Your task to perform on an android device: Open CNN.com Image 0: 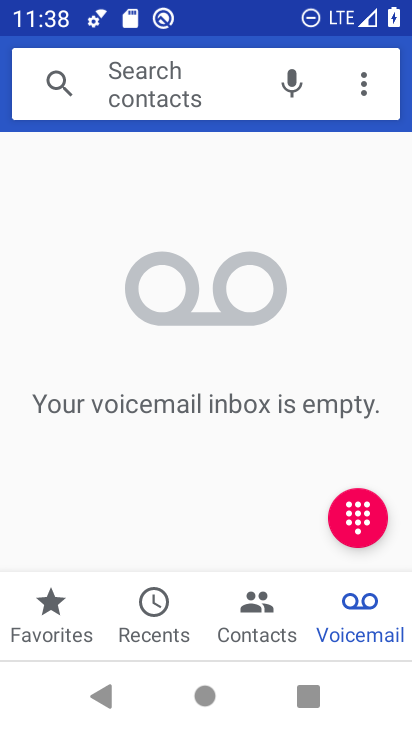
Step 0: press home button
Your task to perform on an android device: Open CNN.com Image 1: 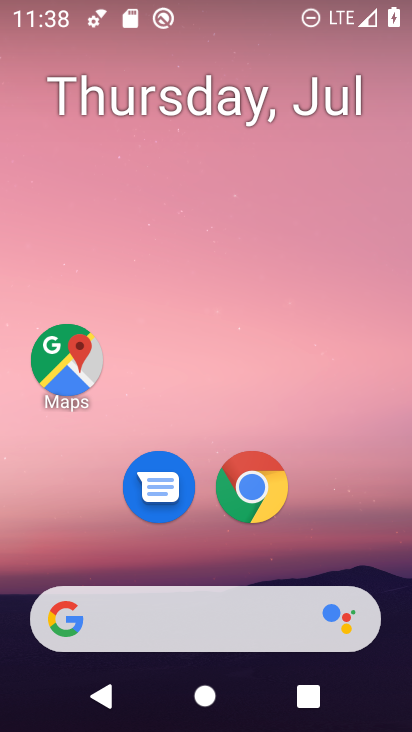
Step 1: drag from (240, 602) to (233, 50)
Your task to perform on an android device: Open CNN.com Image 2: 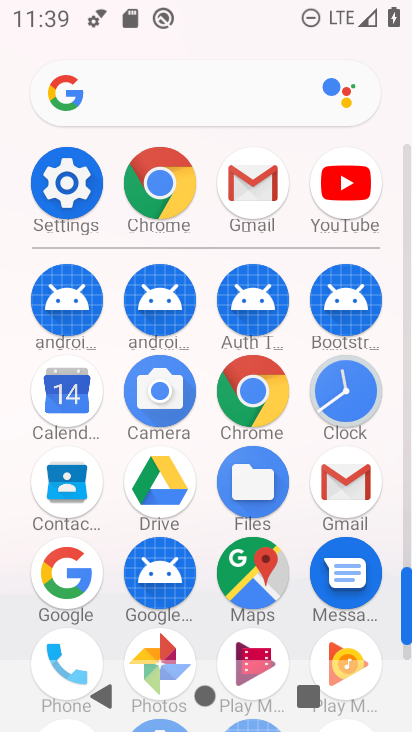
Step 2: click (184, 190)
Your task to perform on an android device: Open CNN.com Image 3: 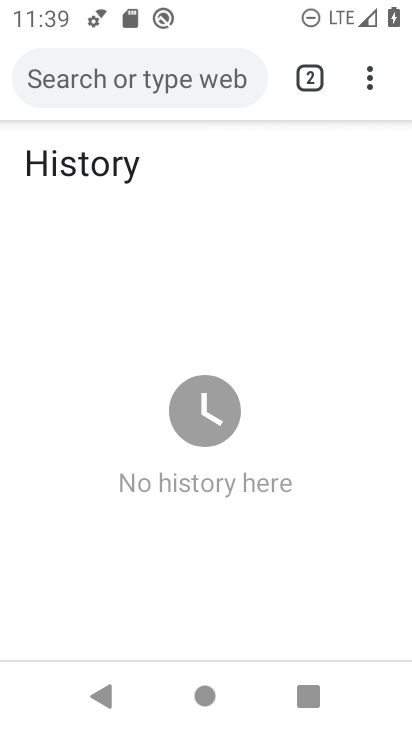
Step 3: click (200, 89)
Your task to perform on an android device: Open CNN.com Image 4: 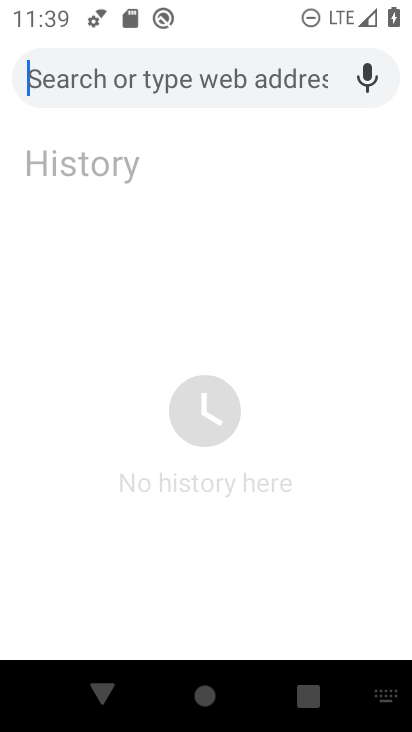
Step 4: type "cnn"
Your task to perform on an android device: Open CNN.com Image 5: 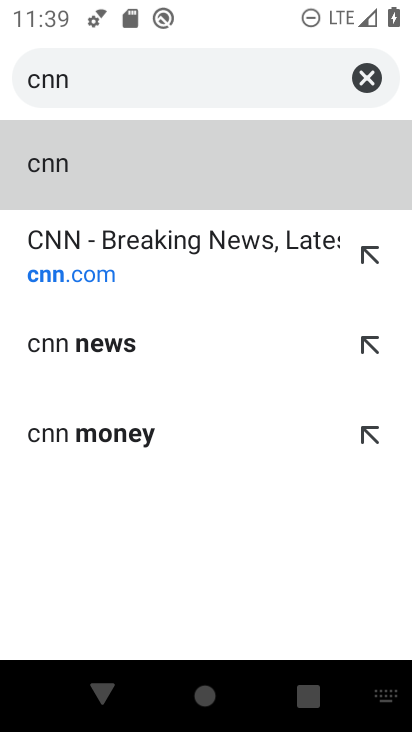
Step 5: click (165, 267)
Your task to perform on an android device: Open CNN.com Image 6: 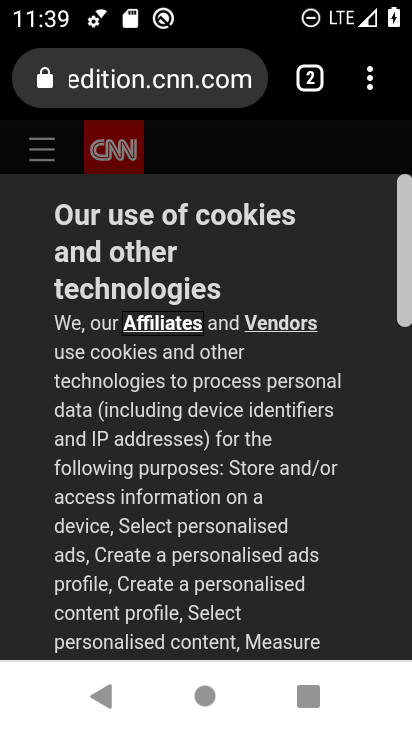
Step 6: task complete